Your task to perform on an android device: Open calendar and show me the second week of next month Image 0: 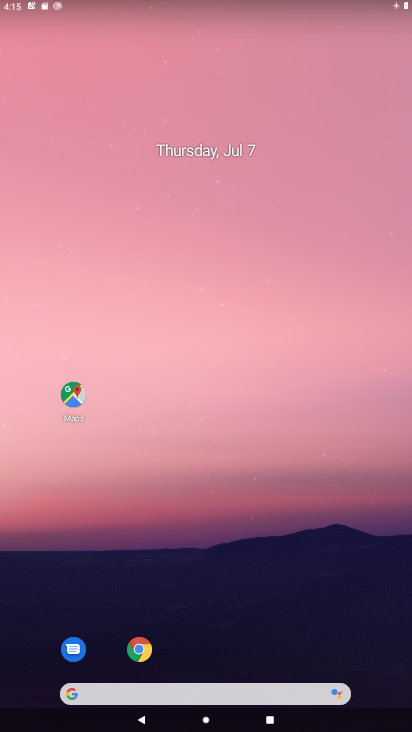
Step 0: drag from (384, 688) to (312, 122)
Your task to perform on an android device: Open calendar and show me the second week of next month Image 1: 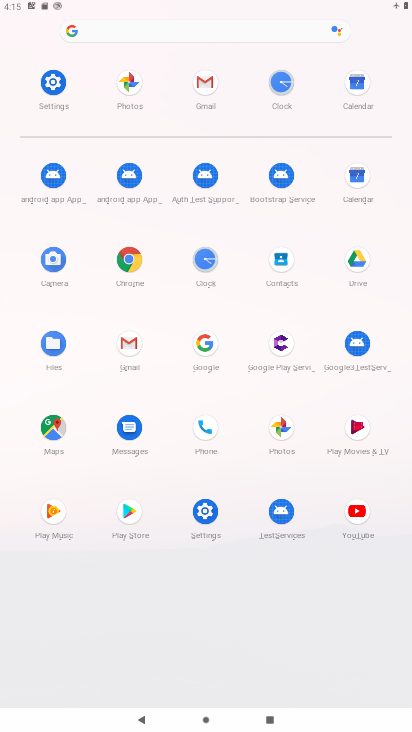
Step 1: click (357, 178)
Your task to perform on an android device: Open calendar and show me the second week of next month Image 2: 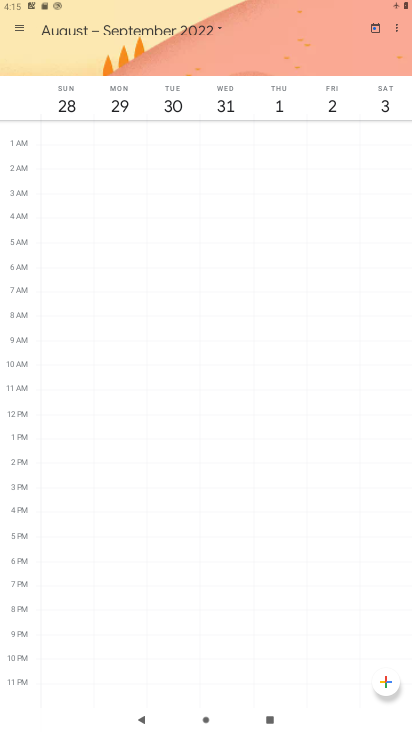
Step 2: click (208, 28)
Your task to perform on an android device: Open calendar and show me the second week of next month Image 3: 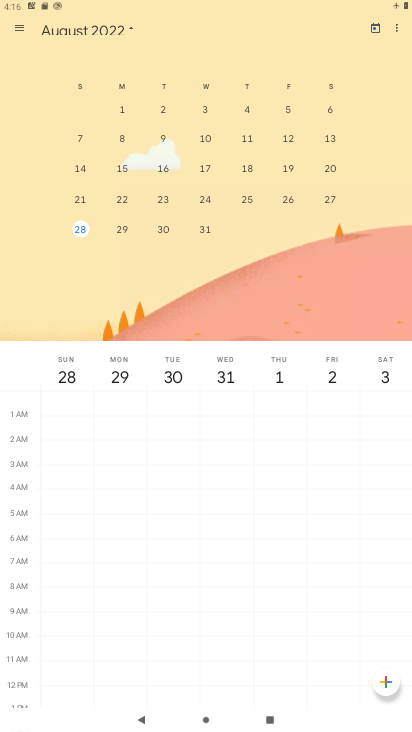
Step 3: click (82, 169)
Your task to perform on an android device: Open calendar and show me the second week of next month Image 4: 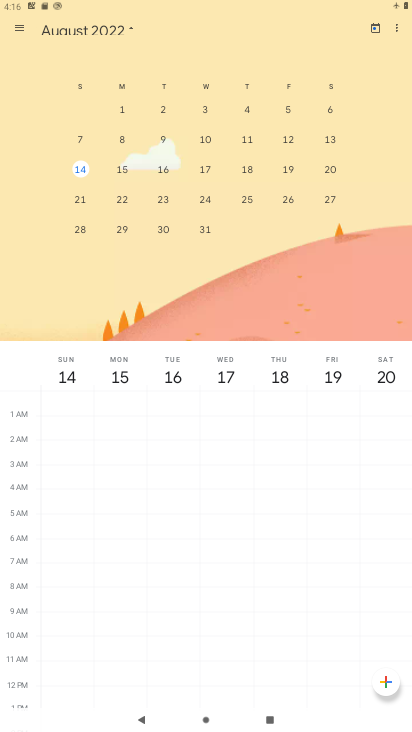
Step 4: task complete